Your task to perform on an android device: toggle sleep mode Image 0: 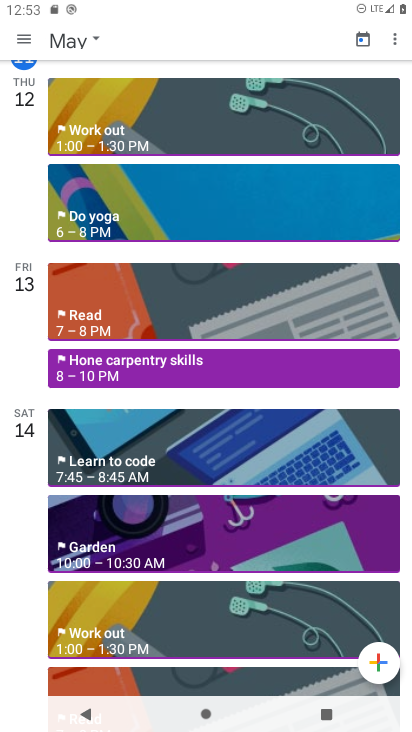
Step 0: press home button
Your task to perform on an android device: toggle sleep mode Image 1: 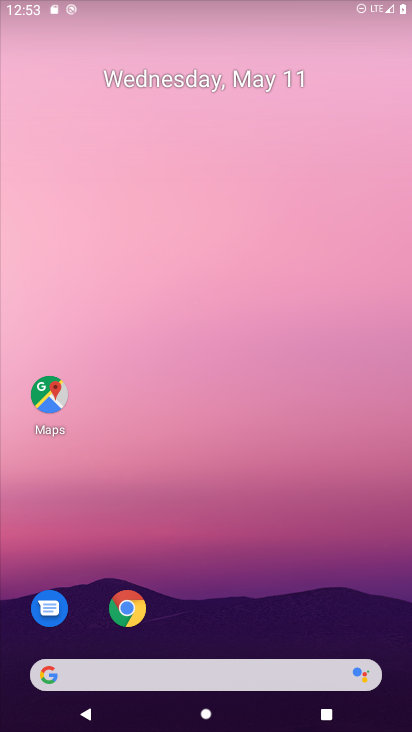
Step 1: drag from (295, 498) to (300, 75)
Your task to perform on an android device: toggle sleep mode Image 2: 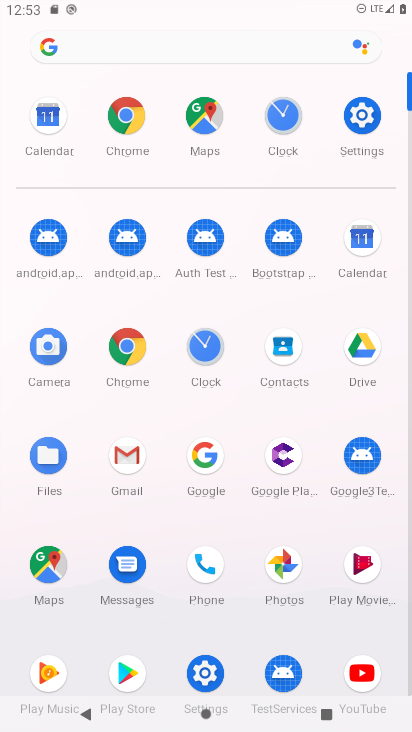
Step 2: click (364, 122)
Your task to perform on an android device: toggle sleep mode Image 3: 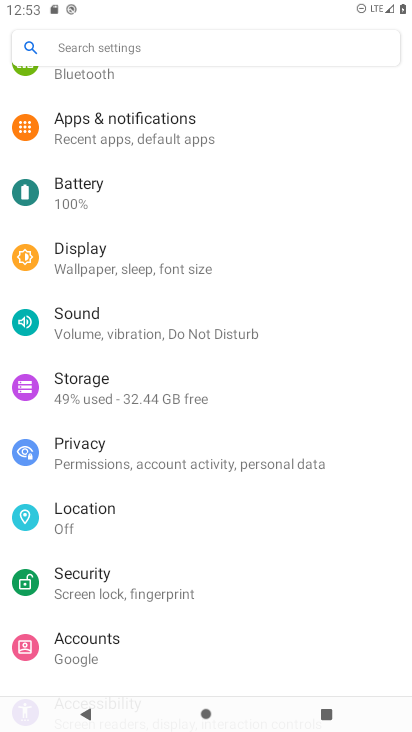
Step 3: click (187, 262)
Your task to perform on an android device: toggle sleep mode Image 4: 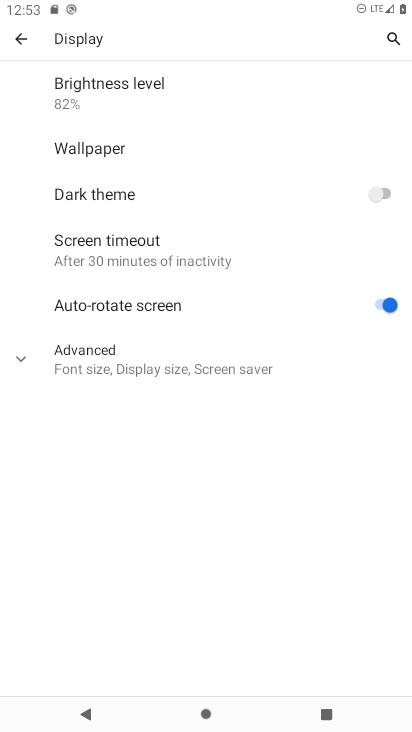
Step 4: click (23, 355)
Your task to perform on an android device: toggle sleep mode Image 5: 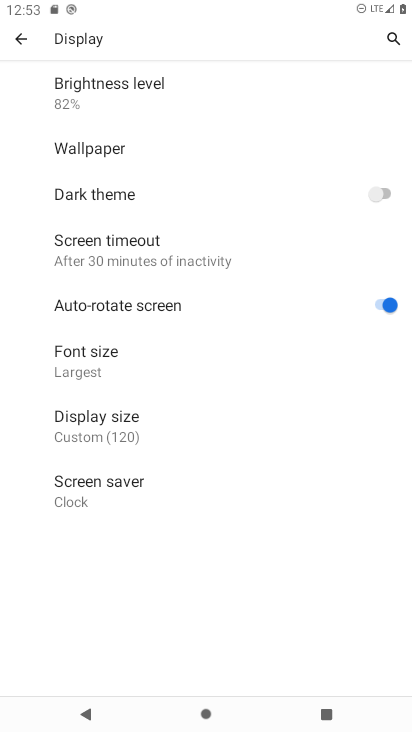
Step 5: task complete